Your task to perform on an android device: turn off translation in the chrome app Image 0: 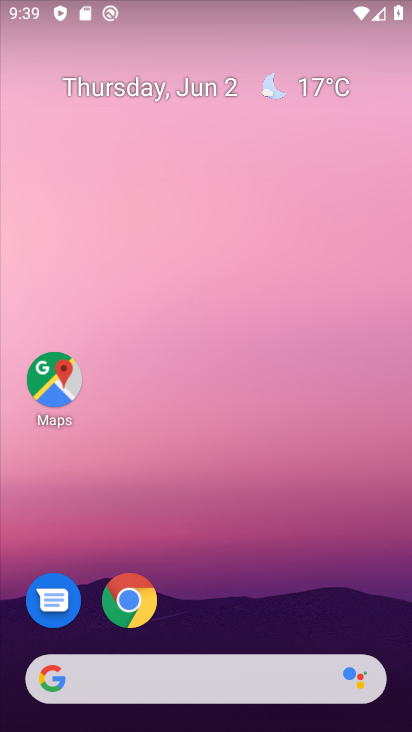
Step 0: drag from (208, 476) to (173, 54)
Your task to perform on an android device: turn off translation in the chrome app Image 1: 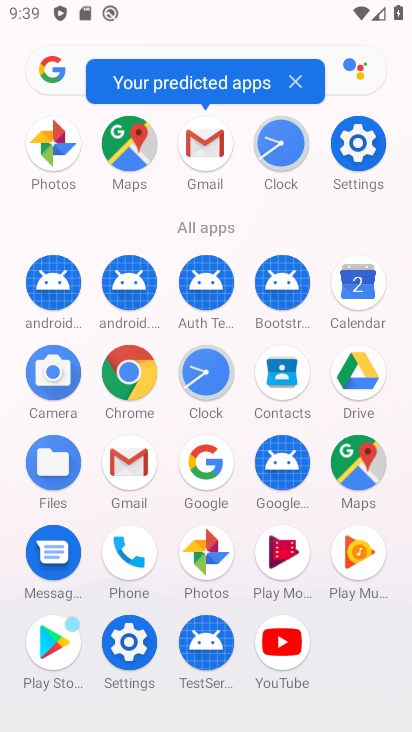
Step 1: drag from (15, 470) to (11, 265)
Your task to perform on an android device: turn off translation in the chrome app Image 2: 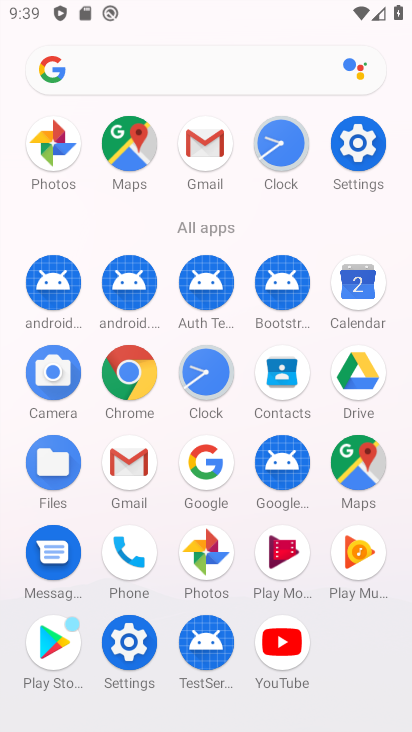
Step 2: click (124, 372)
Your task to perform on an android device: turn off translation in the chrome app Image 3: 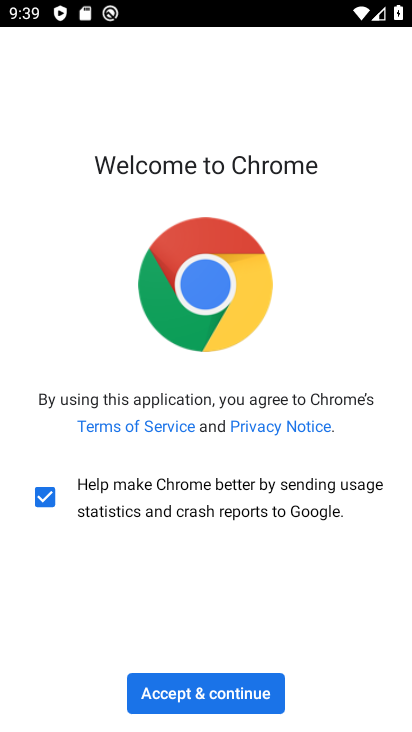
Step 3: click (201, 689)
Your task to perform on an android device: turn off translation in the chrome app Image 4: 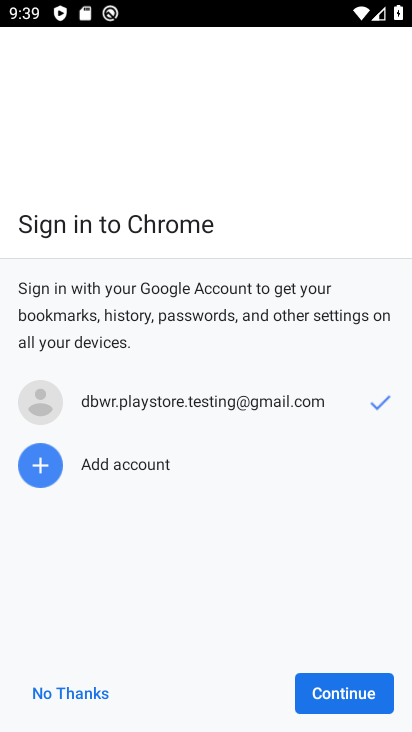
Step 4: click (335, 693)
Your task to perform on an android device: turn off translation in the chrome app Image 5: 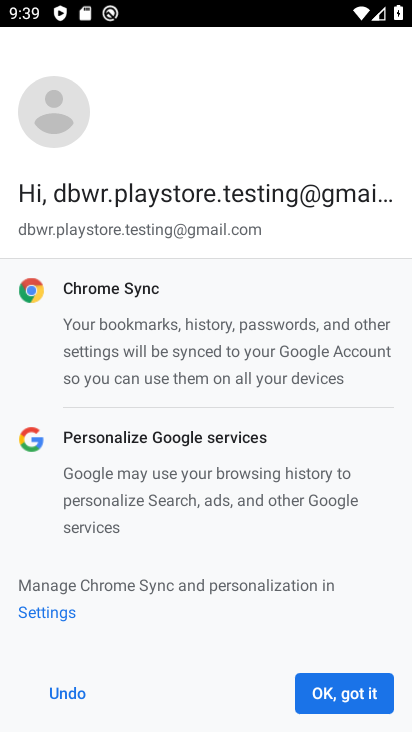
Step 5: click (350, 691)
Your task to perform on an android device: turn off translation in the chrome app Image 6: 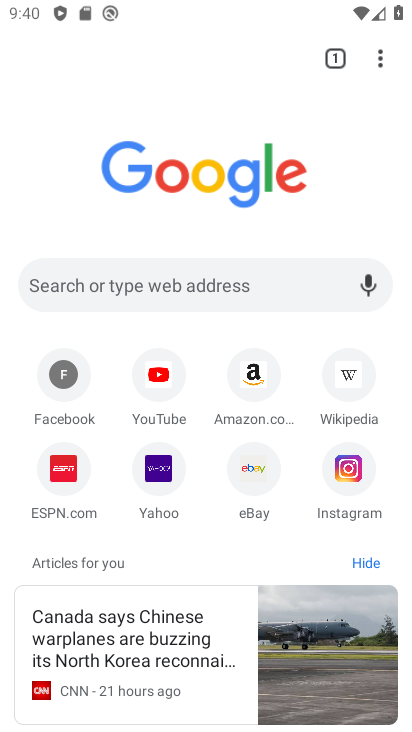
Step 6: drag from (378, 61) to (187, 492)
Your task to perform on an android device: turn off translation in the chrome app Image 7: 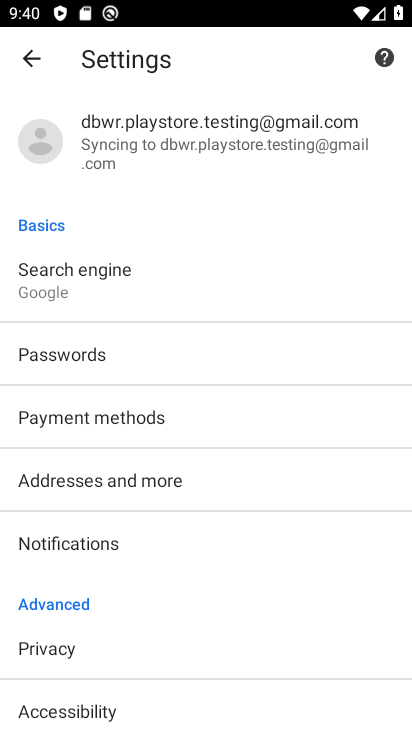
Step 7: drag from (228, 626) to (249, 171)
Your task to perform on an android device: turn off translation in the chrome app Image 8: 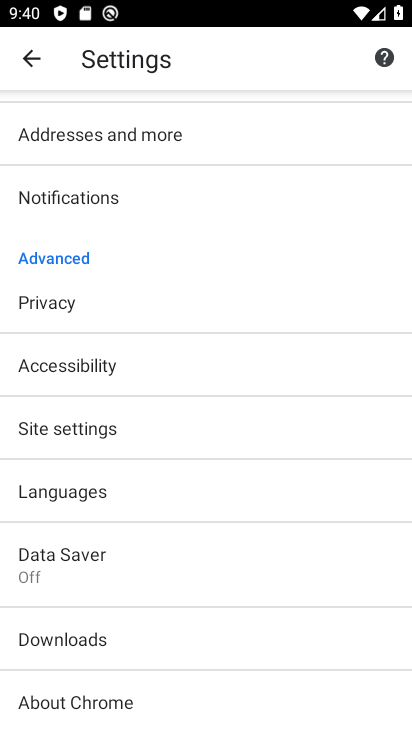
Step 8: drag from (179, 597) to (207, 273)
Your task to perform on an android device: turn off translation in the chrome app Image 9: 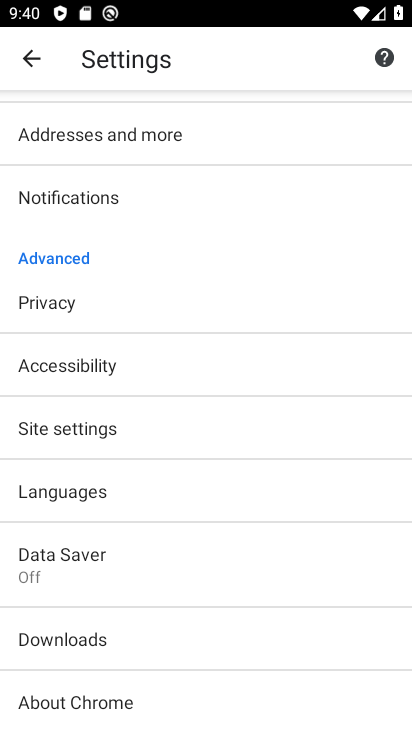
Step 9: click (96, 491)
Your task to perform on an android device: turn off translation in the chrome app Image 10: 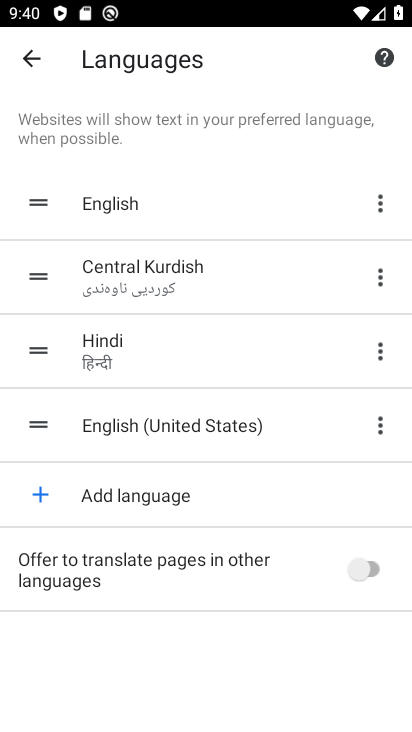
Step 10: task complete